Your task to perform on an android device: Search for a new lawnmower on home depot Image 0: 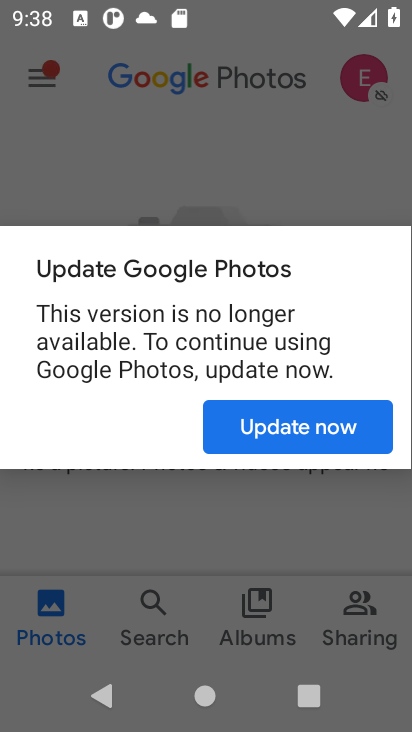
Step 0: click (208, 481)
Your task to perform on an android device: Search for a new lawnmower on home depot Image 1: 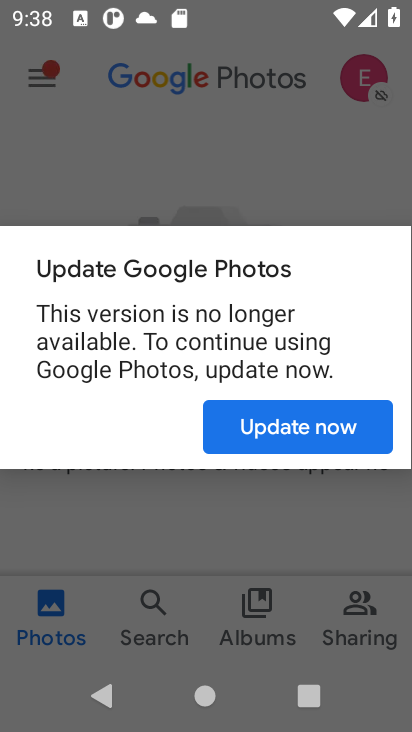
Step 1: click (282, 512)
Your task to perform on an android device: Search for a new lawnmower on home depot Image 2: 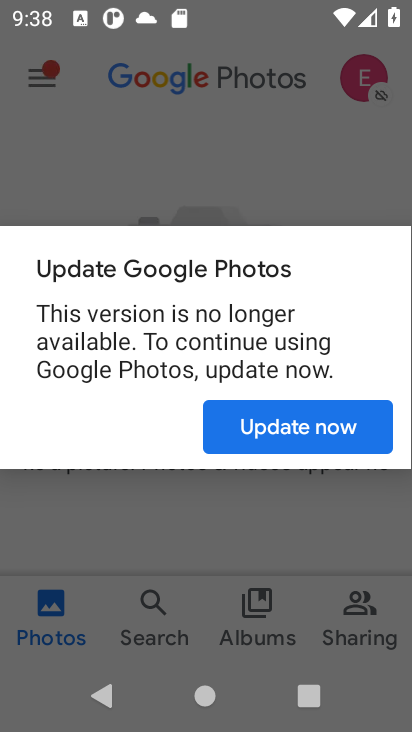
Step 2: press back button
Your task to perform on an android device: Search for a new lawnmower on home depot Image 3: 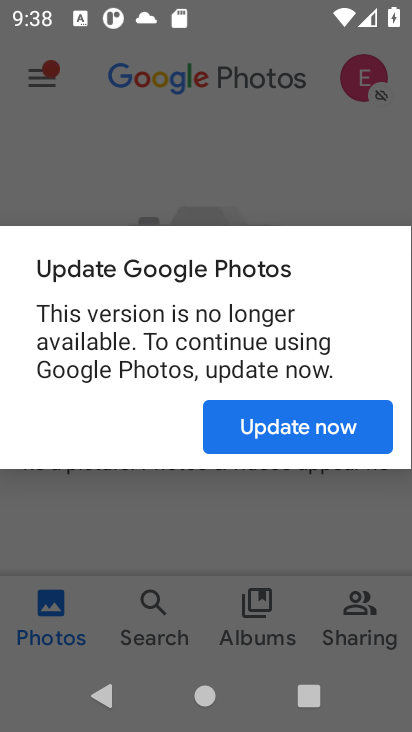
Step 3: press back button
Your task to perform on an android device: Search for a new lawnmower on home depot Image 4: 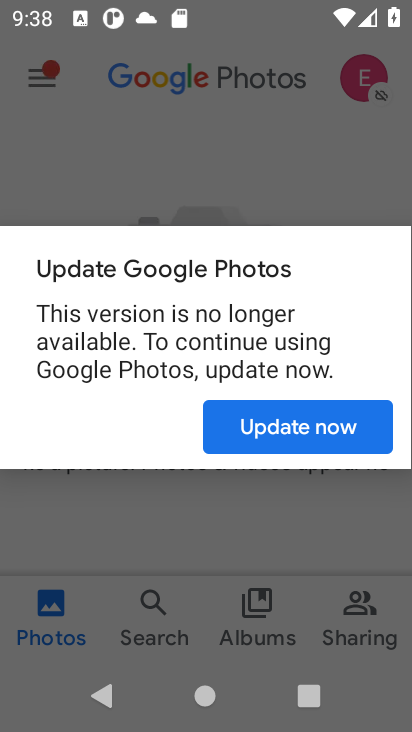
Step 4: press back button
Your task to perform on an android device: Search for a new lawnmower on home depot Image 5: 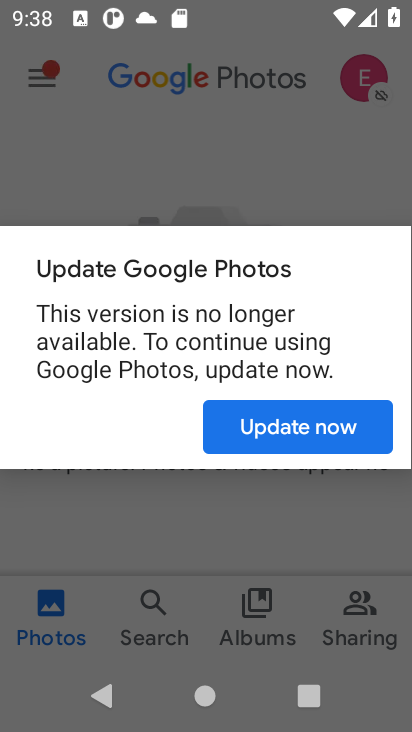
Step 5: press home button
Your task to perform on an android device: Search for a new lawnmower on home depot Image 6: 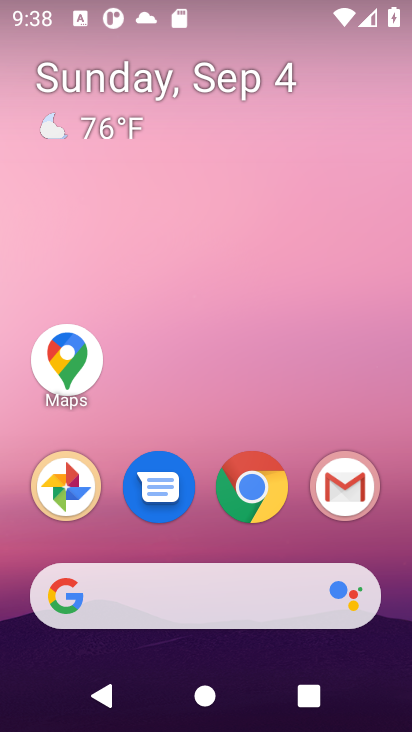
Step 6: click (276, 579)
Your task to perform on an android device: Search for a new lawnmower on home depot Image 7: 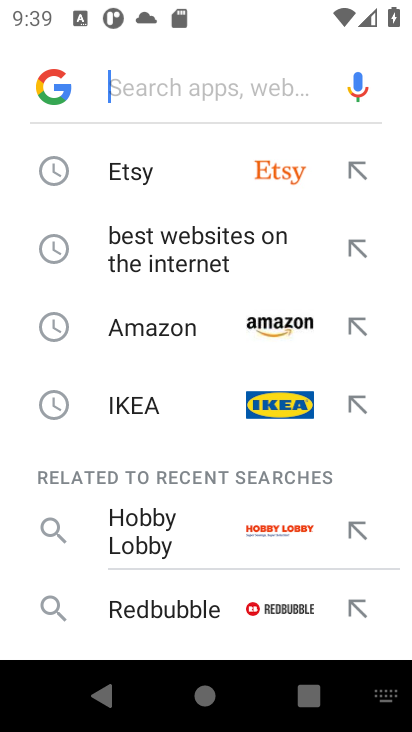
Step 7: type "home depot"
Your task to perform on an android device: Search for a new lawnmower on home depot Image 8: 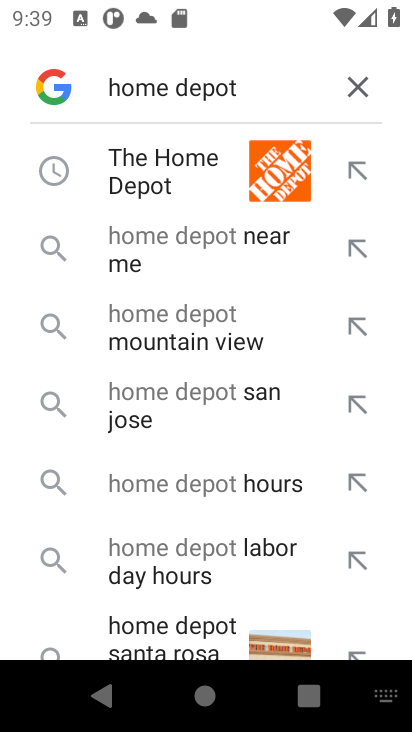
Step 8: click (283, 144)
Your task to perform on an android device: Search for a new lawnmower on home depot Image 9: 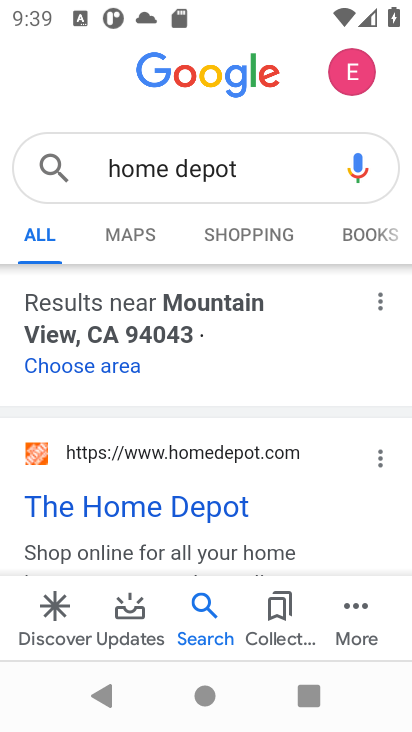
Step 9: click (216, 471)
Your task to perform on an android device: Search for a new lawnmower on home depot Image 10: 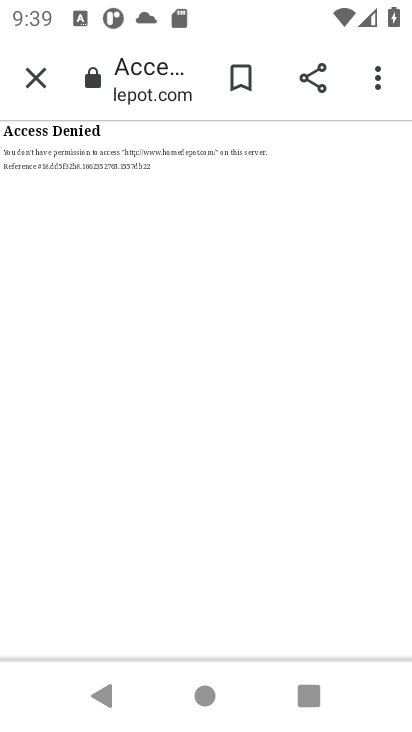
Step 10: press back button
Your task to perform on an android device: Search for a new lawnmower on home depot Image 11: 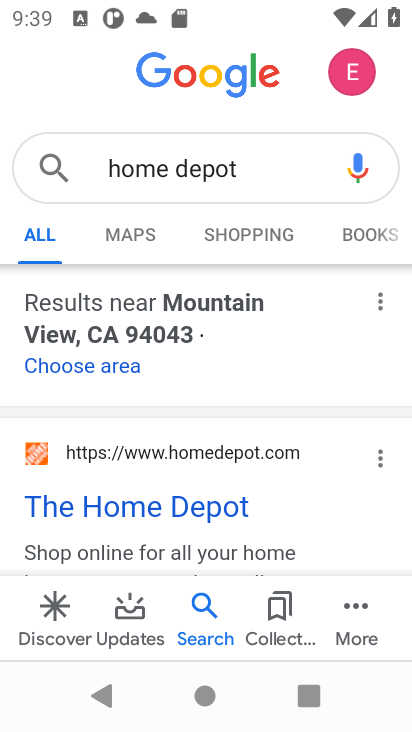
Step 11: click (207, 502)
Your task to perform on an android device: Search for a new lawnmower on home depot Image 12: 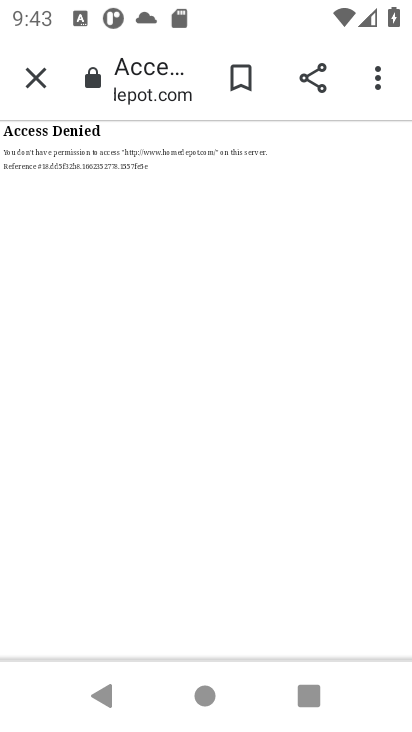
Step 12: task complete